Your task to perform on an android device: stop showing notifications on the lock screen Image 0: 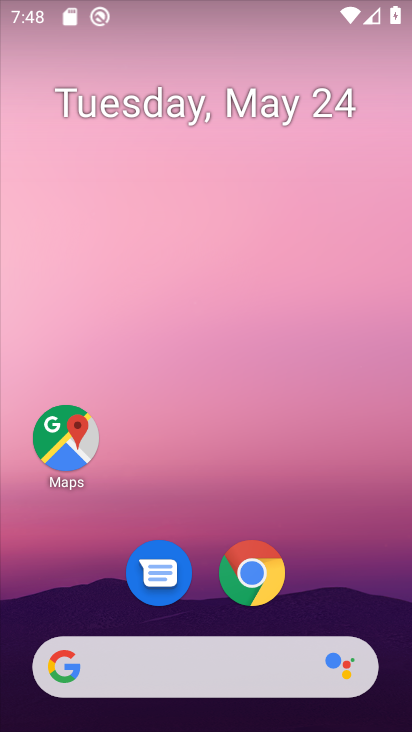
Step 0: drag from (362, 580) to (371, 62)
Your task to perform on an android device: stop showing notifications on the lock screen Image 1: 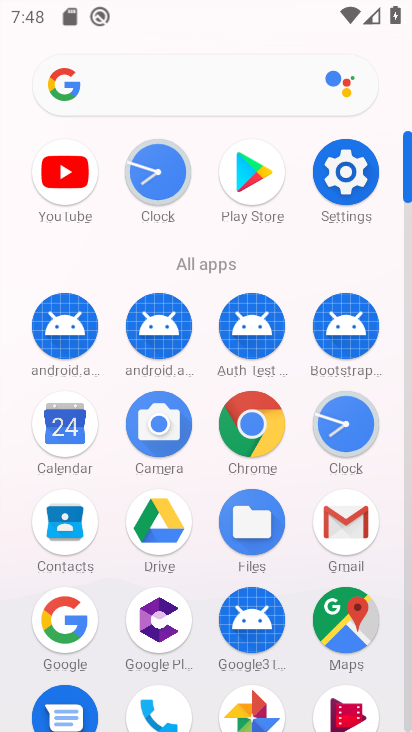
Step 1: drag from (370, 561) to (371, 45)
Your task to perform on an android device: stop showing notifications on the lock screen Image 2: 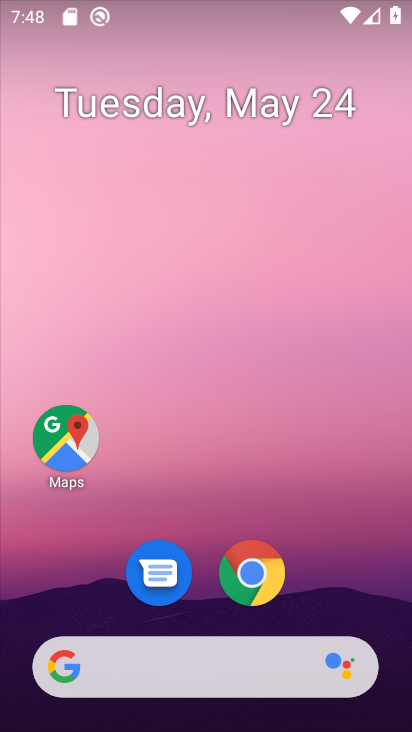
Step 2: drag from (348, 551) to (337, 8)
Your task to perform on an android device: stop showing notifications on the lock screen Image 3: 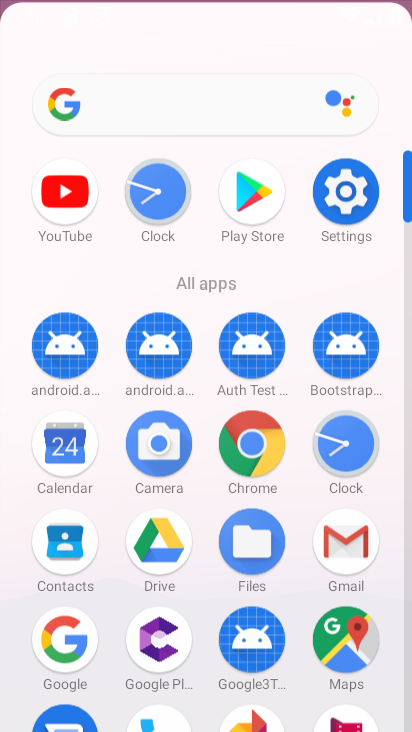
Step 3: click (358, 210)
Your task to perform on an android device: stop showing notifications on the lock screen Image 4: 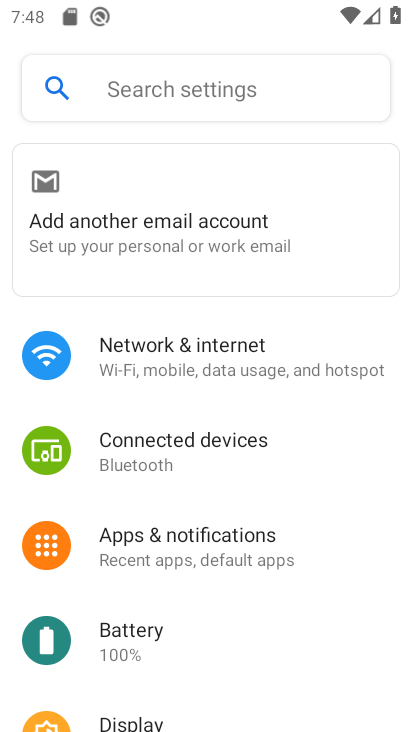
Step 4: click (229, 555)
Your task to perform on an android device: stop showing notifications on the lock screen Image 5: 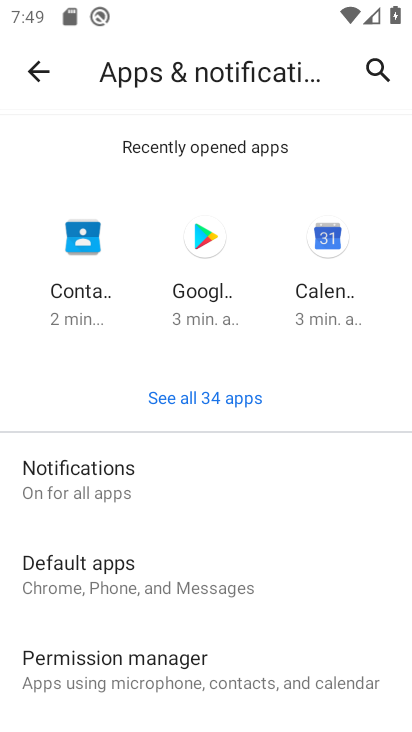
Step 5: click (76, 470)
Your task to perform on an android device: stop showing notifications on the lock screen Image 6: 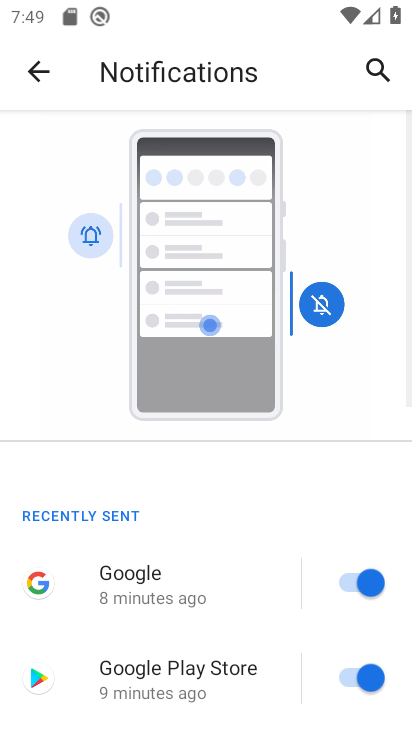
Step 6: drag from (147, 591) to (228, 250)
Your task to perform on an android device: stop showing notifications on the lock screen Image 7: 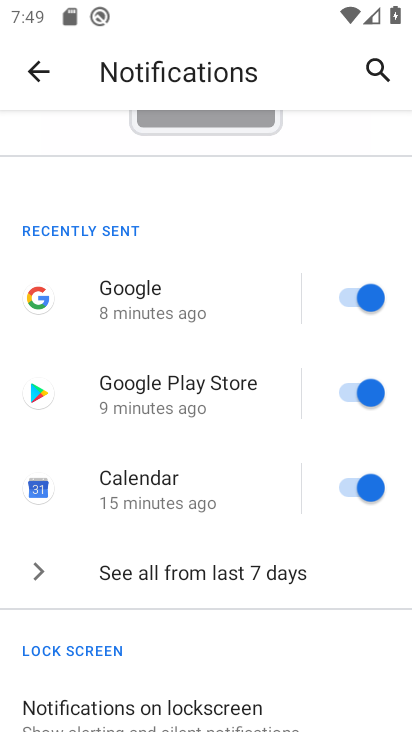
Step 7: drag from (177, 670) to (237, 299)
Your task to perform on an android device: stop showing notifications on the lock screen Image 8: 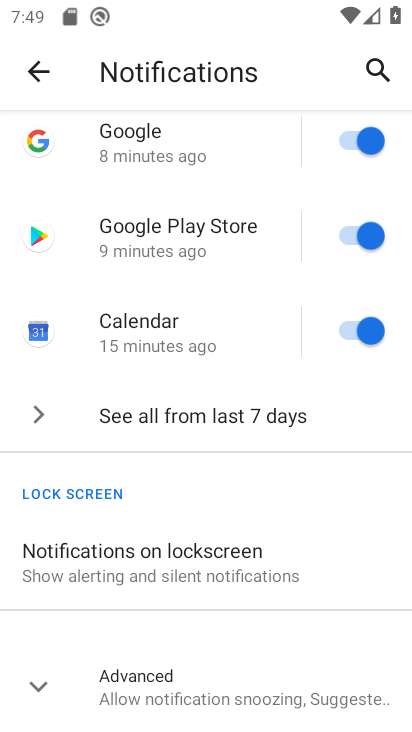
Step 8: click (141, 561)
Your task to perform on an android device: stop showing notifications on the lock screen Image 9: 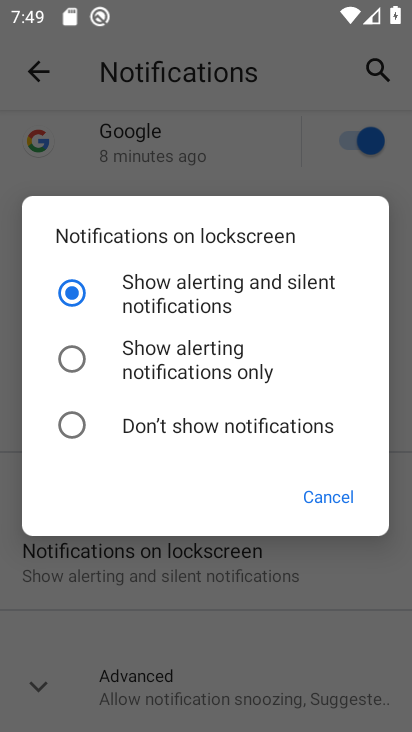
Step 9: click (85, 439)
Your task to perform on an android device: stop showing notifications on the lock screen Image 10: 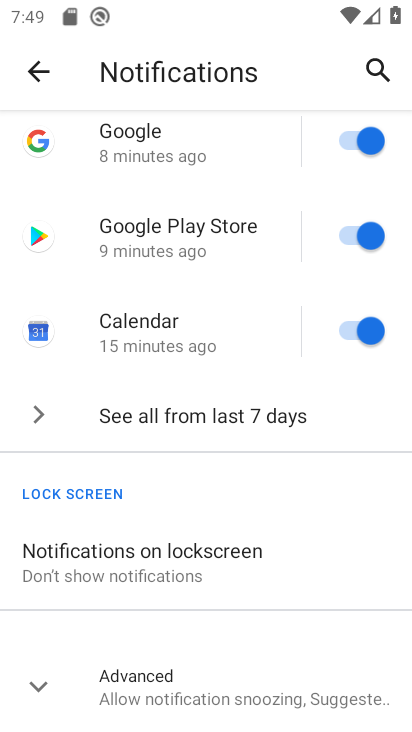
Step 10: task complete